Your task to perform on an android device: Open settings Image 0: 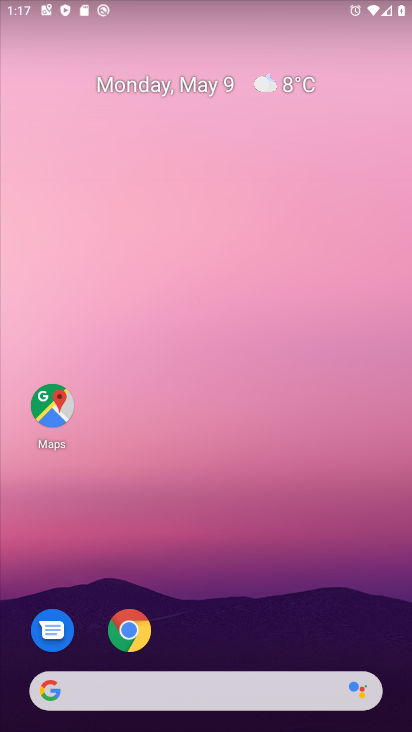
Step 0: drag from (342, 616) to (263, 85)
Your task to perform on an android device: Open settings Image 1: 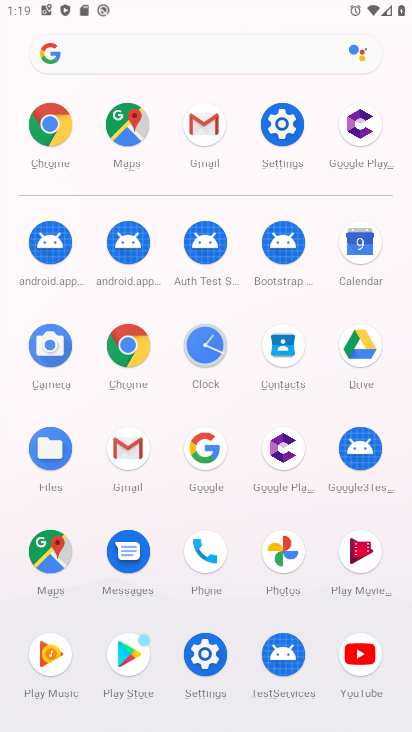
Step 1: click (230, 660)
Your task to perform on an android device: Open settings Image 2: 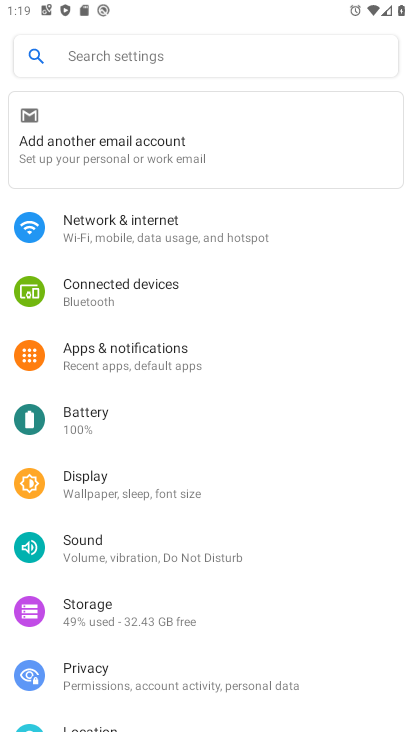
Step 2: task complete